Your task to perform on an android device: stop showing notifications on the lock screen Image 0: 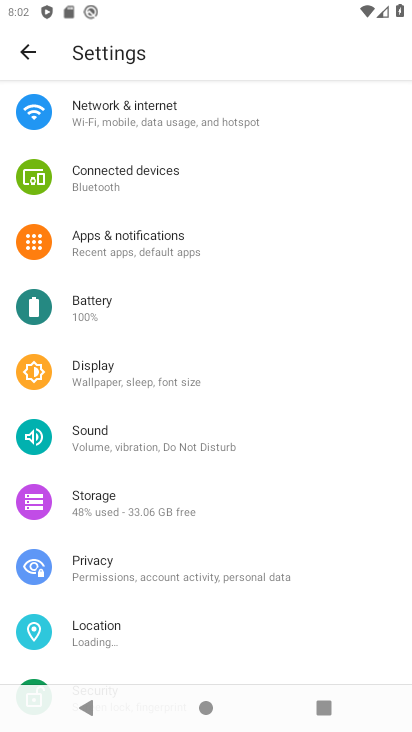
Step 0: click (12, 51)
Your task to perform on an android device: stop showing notifications on the lock screen Image 1: 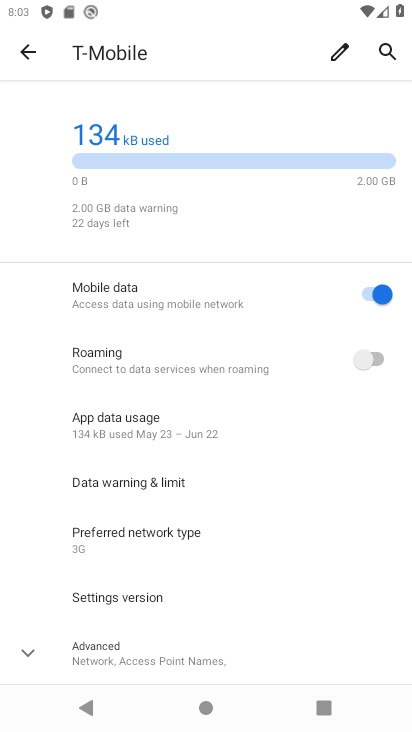
Step 1: click (24, 43)
Your task to perform on an android device: stop showing notifications on the lock screen Image 2: 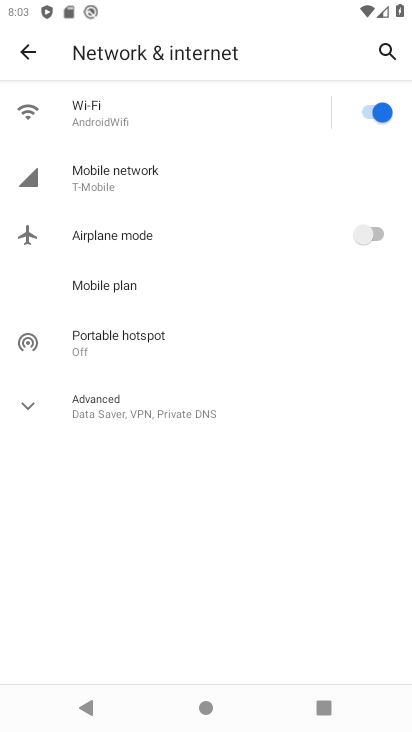
Step 2: click (25, 51)
Your task to perform on an android device: stop showing notifications on the lock screen Image 3: 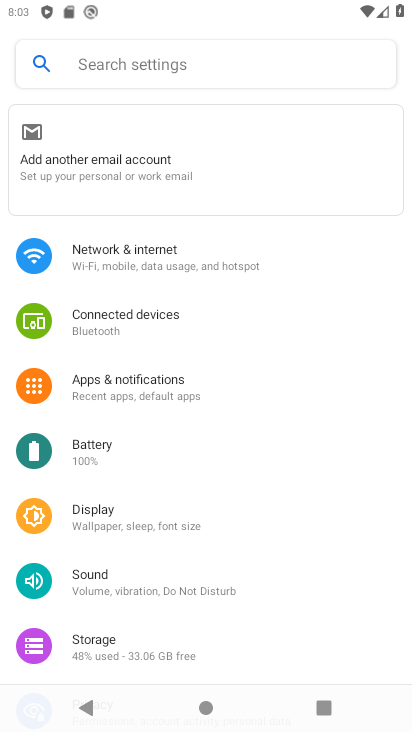
Step 3: press back button
Your task to perform on an android device: stop showing notifications on the lock screen Image 4: 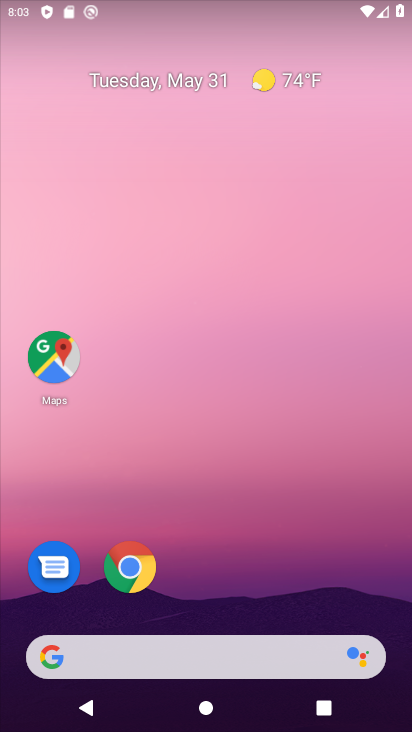
Step 4: drag from (258, 703) to (244, 157)
Your task to perform on an android device: stop showing notifications on the lock screen Image 5: 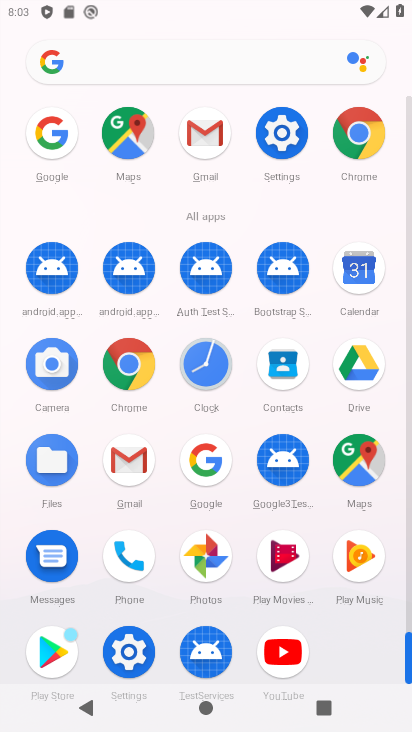
Step 5: click (286, 121)
Your task to perform on an android device: stop showing notifications on the lock screen Image 6: 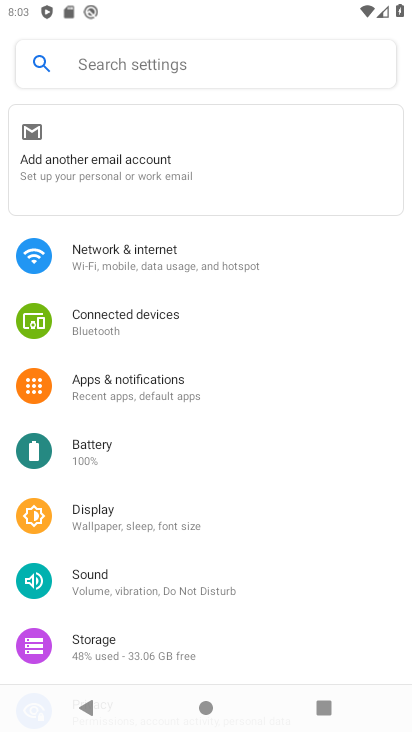
Step 6: click (139, 388)
Your task to perform on an android device: stop showing notifications on the lock screen Image 7: 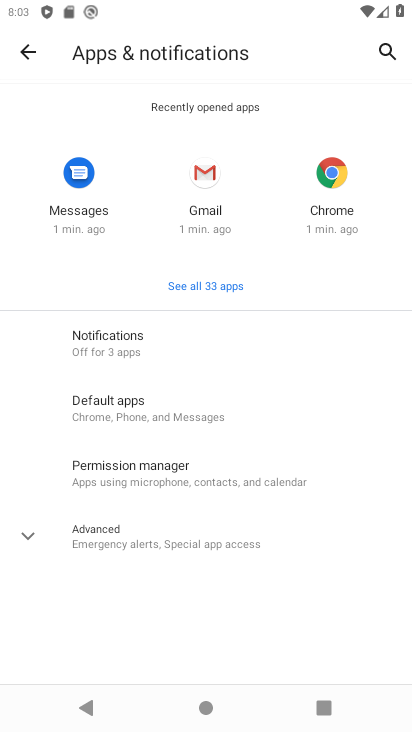
Step 7: click (108, 341)
Your task to perform on an android device: stop showing notifications on the lock screen Image 8: 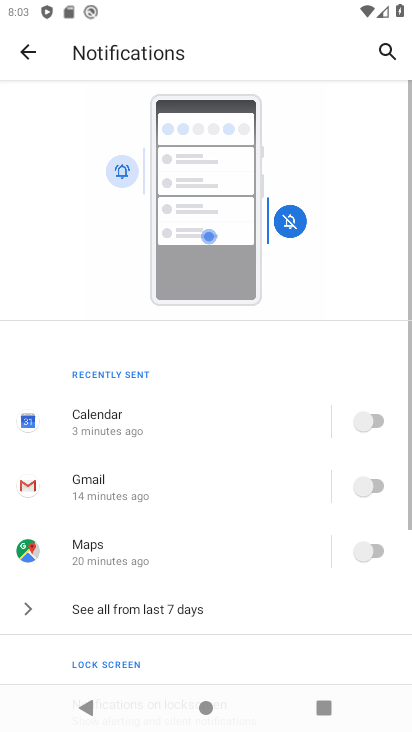
Step 8: drag from (172, 579) to (143, 200)
Your task to perform on an android device: stop showing notifications on the lock screen Image 9: 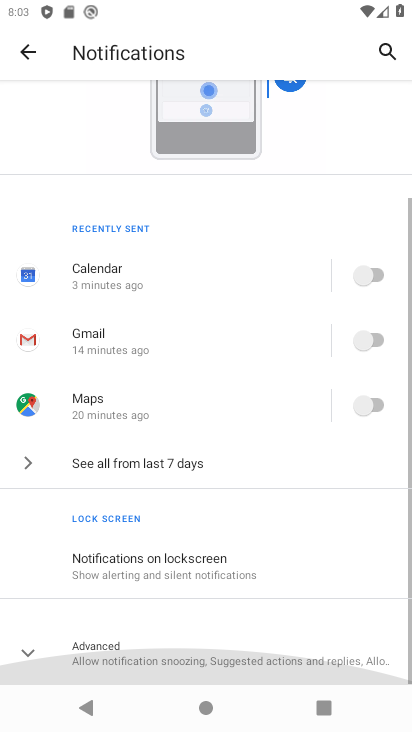
Step 9: drag from (203, 533) to (232, 175)
Your task to perform on an android device: stop showing notifications on the lock screen Image 10: 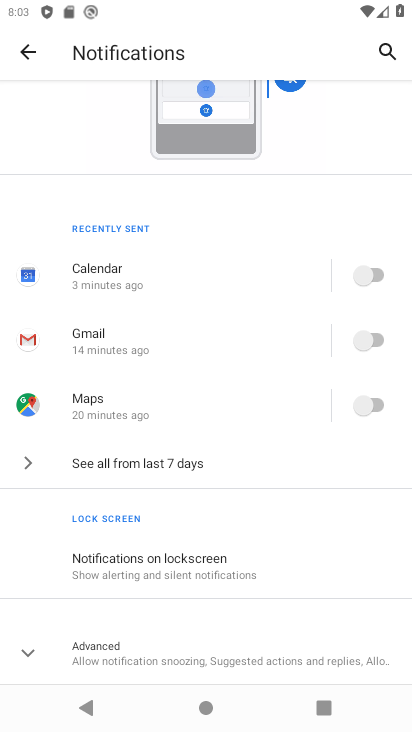
Step 10: click (158, 558)
Your task to perform on an android device: stop showing notifications on the lock screen Image 11: 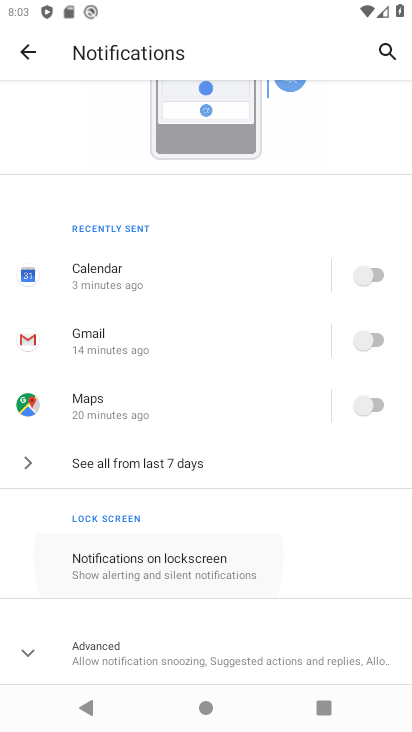
Step 11: click (156, 560)
Your task to perform on an android device: stop showing notifications on the lock screen Image 12: 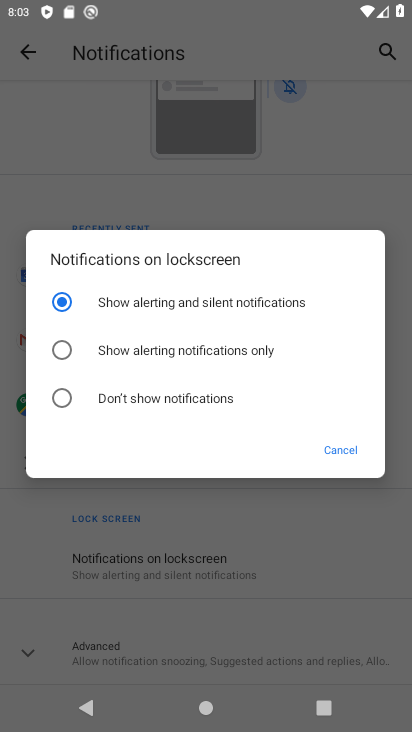
Step 12: click (334, 452)
Your task to perform on an android device: stop showing notifications on the lock screen Image 13: 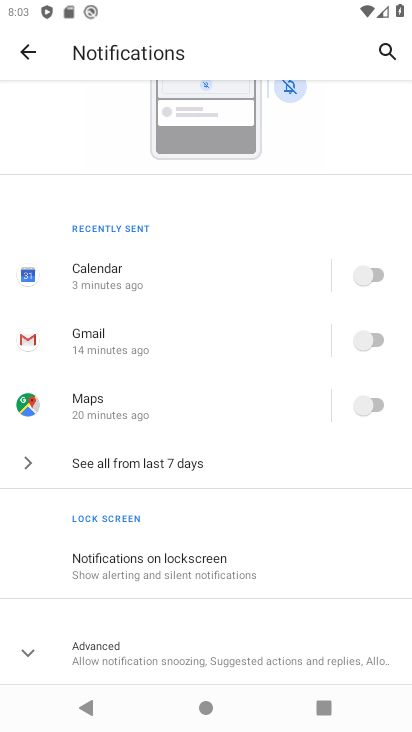
Step 13: task complete